Your task to perform on an android device: What is the speed of a plane? Image 0: 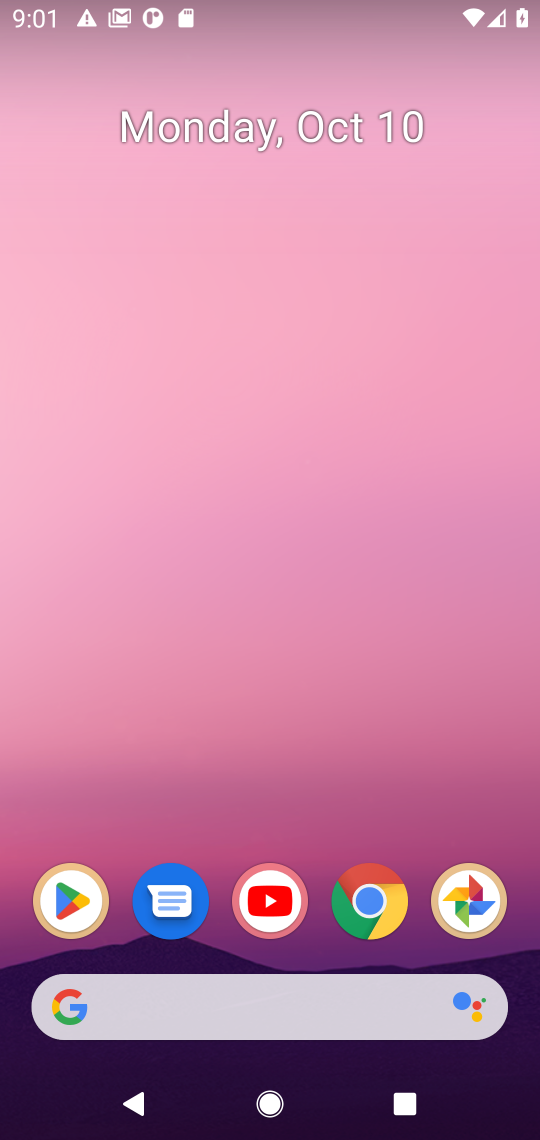
Step 0: click (298, 1003)
Your task to perform on an android device: What is the speed of a plane? Image 1: 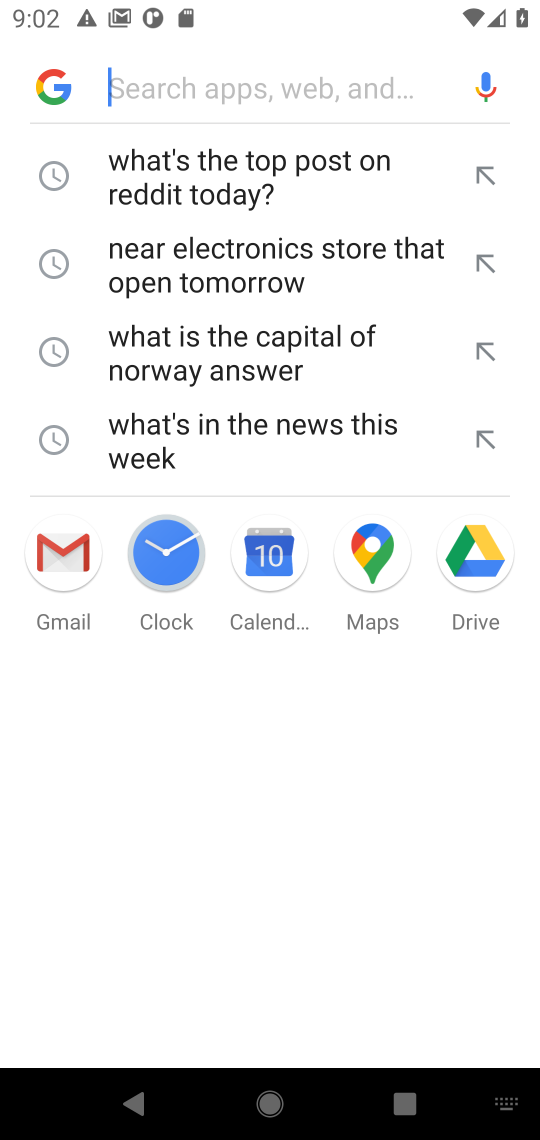
Step 1: type "What is the speed of a plane?"
Your task to perform on an android device: What is the speed of a plane? Image 2: 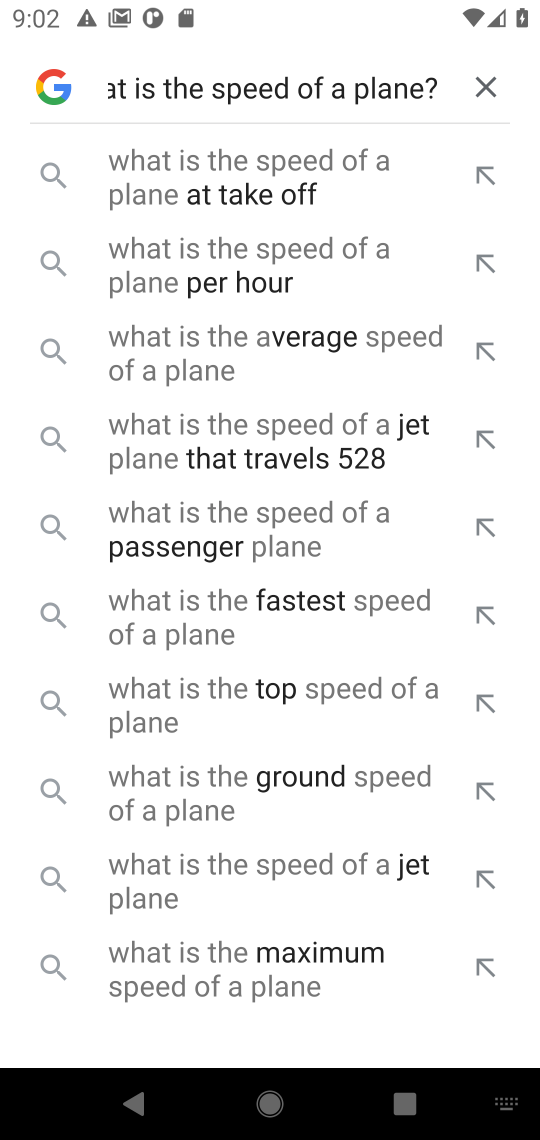
Step 2: press enter
Your task to perform on an android device: What is the speed of a plane? Image 3: 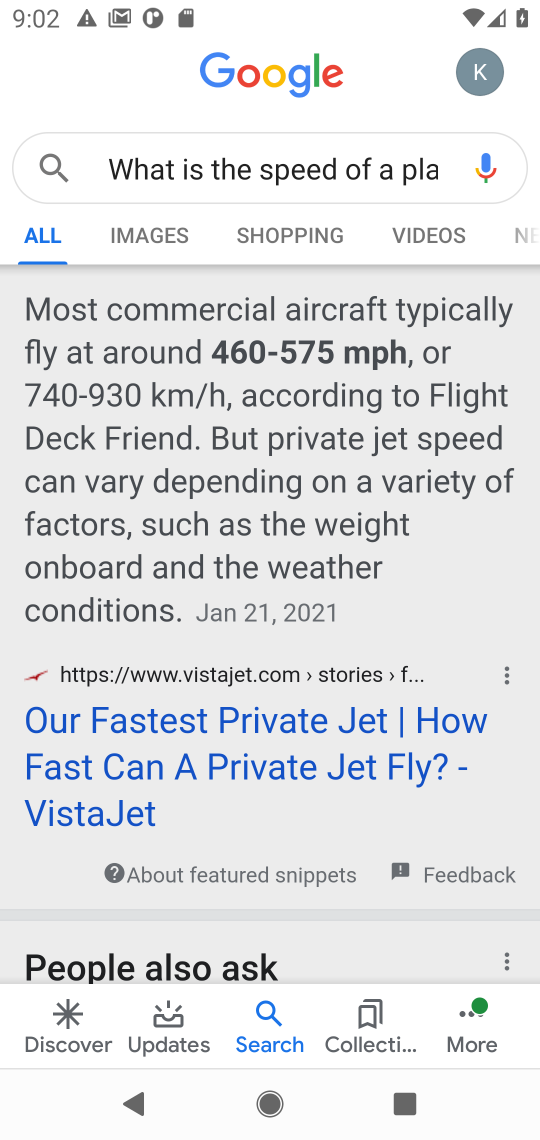
Step 3: task complete